Your task to perform on an android device: turn on location history Image 0: 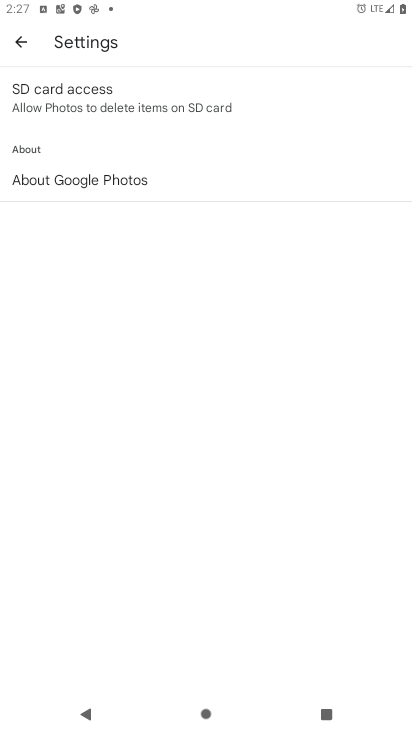
Step 0: press home button
Your task to perform on an android device: turn on location history Image 1: 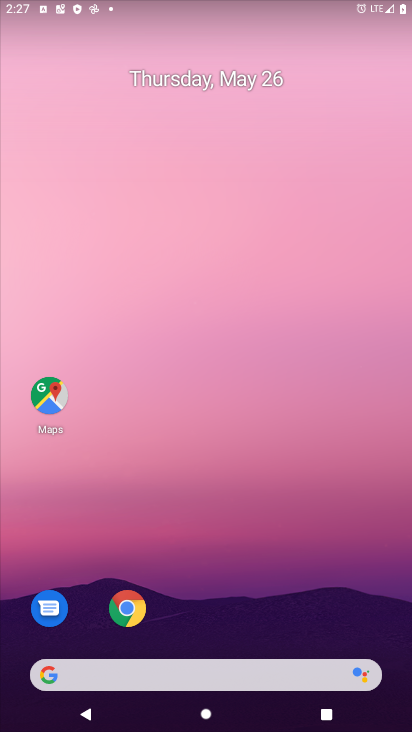
Step 1: click (51, 395)
Your task to perform on an android device: turn on location history Image 2: 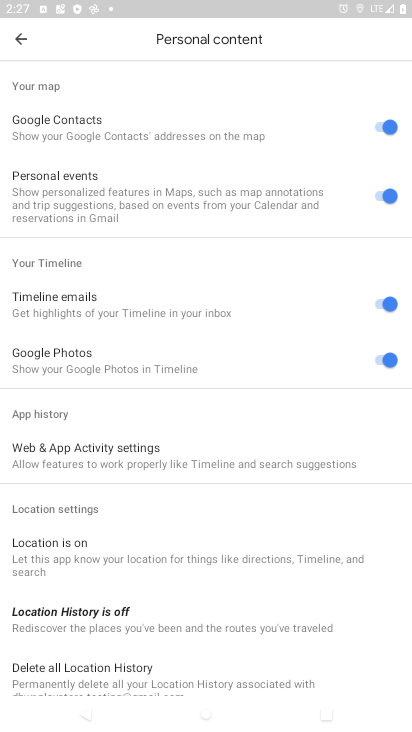
Step 2: click (99, 606)
Your task to perform on an android device: turn on location history Image 3: 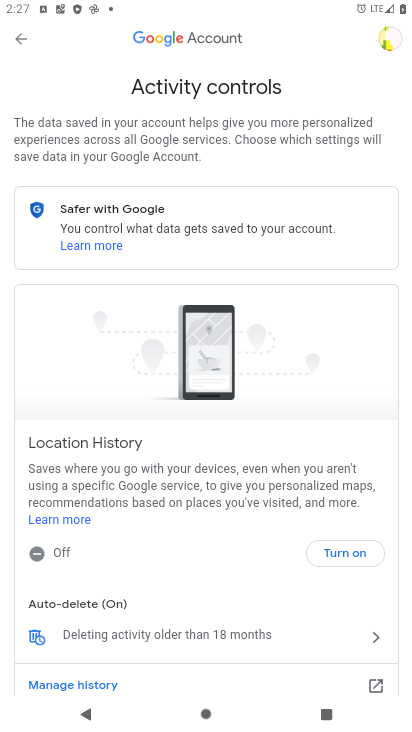
Step 3: click (346, 553)
Your task to perform on an android device: turn on location history Image 4: 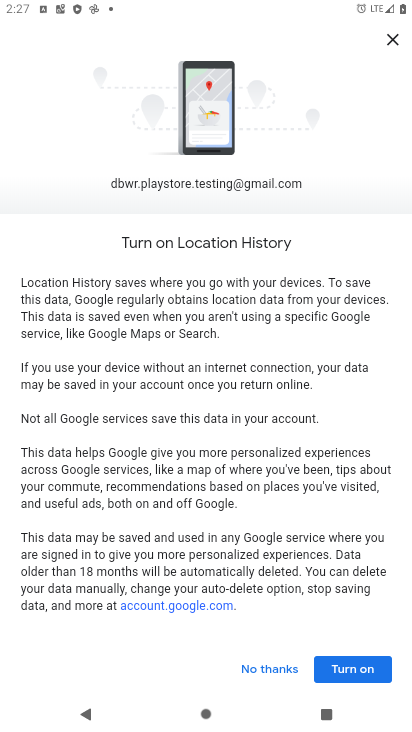
Step 4: click (350, 664)
Your task to perform on an android device: turn on location history Image 5: 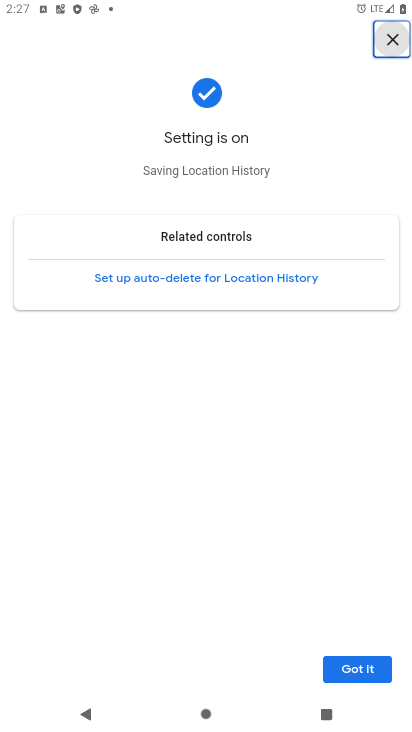
Step 5: click (360, 671)
Your task to perform on an android device: turn on location history Image 6: 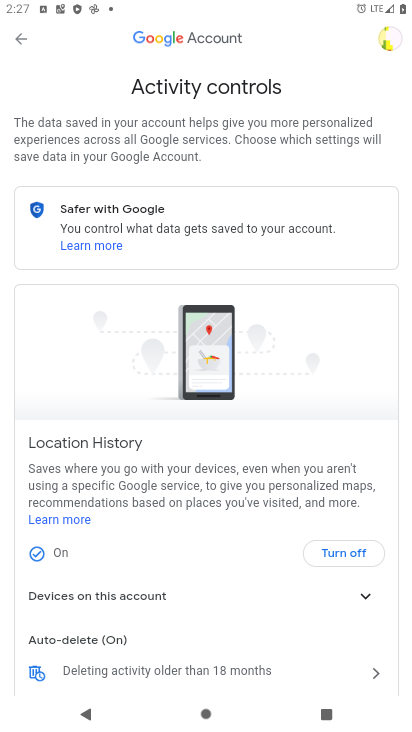
Step 6: task complete